Your task to perform on an android device: Go to Google maps Image 0: 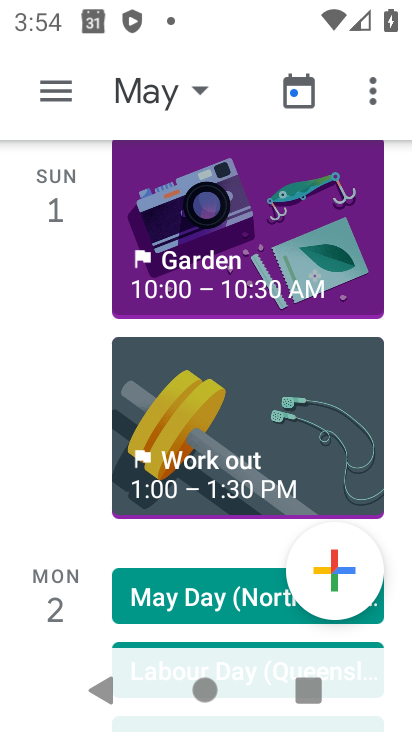
Step 0: press home button
Your task to perform on an android device: Go to Google maps Image 1: 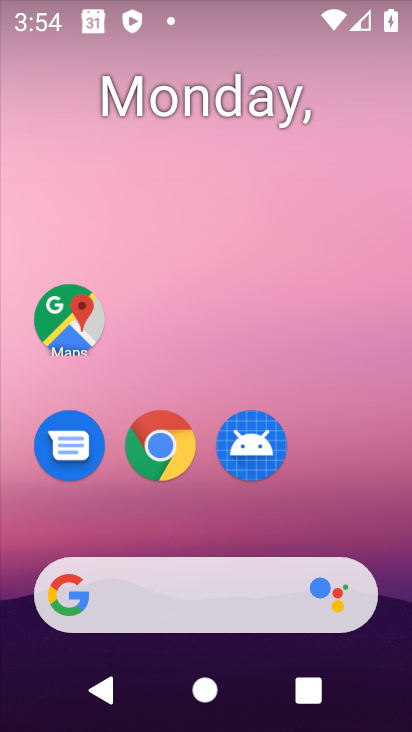
Step 1: drag from (382, 522) to (387, 61)
Your task to perform on an android device: Go to Google maps Image 2: 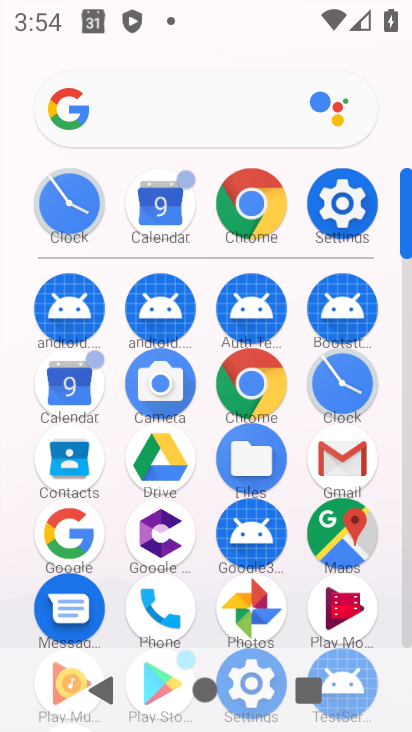
Step 2: click (329, 521)
Your task to perform on an android device: Go to Google maps Image 3: 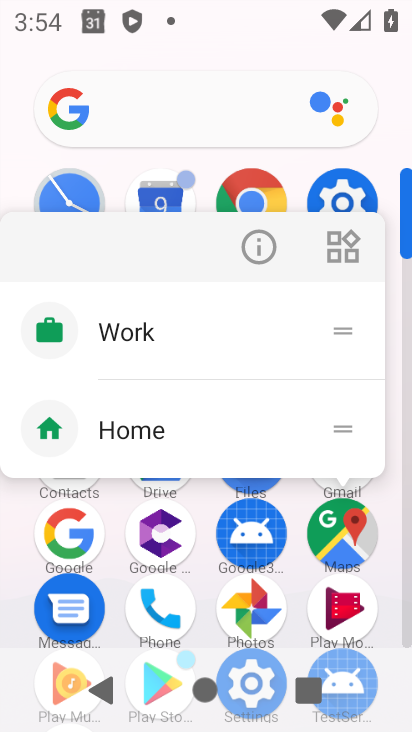
Step 3: click (329, 519)
Your task to perform on an android device: Go to Google maps Image 4: 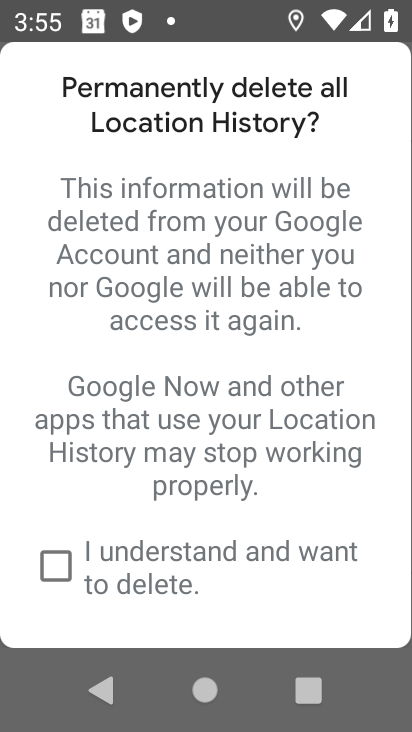
Step 4: press back button
Your task to perform on an android device: Go to Google maps Image 5: 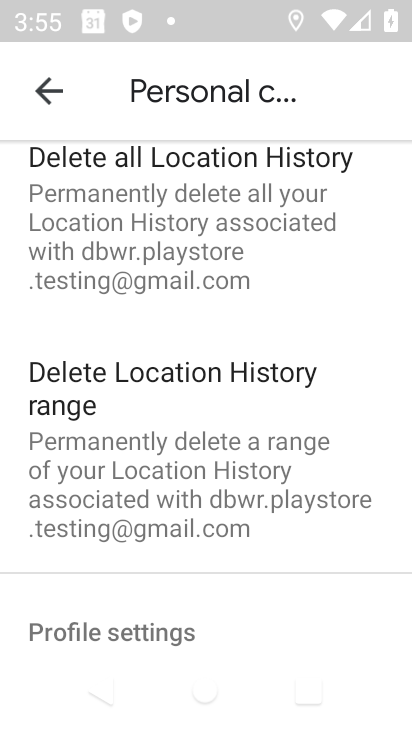
Step 5: click (39, 77)
Your task to perform on an android device: Go to Google maps Image 6: 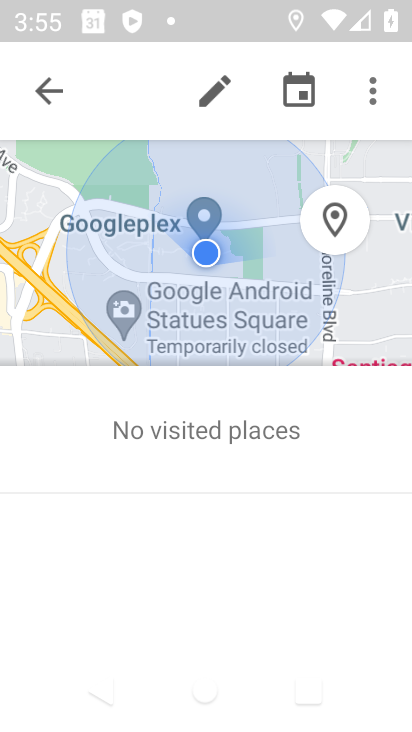
Step 6: task complete